Your task to perform on an android device: change notification settings in the gmail app Image 0: 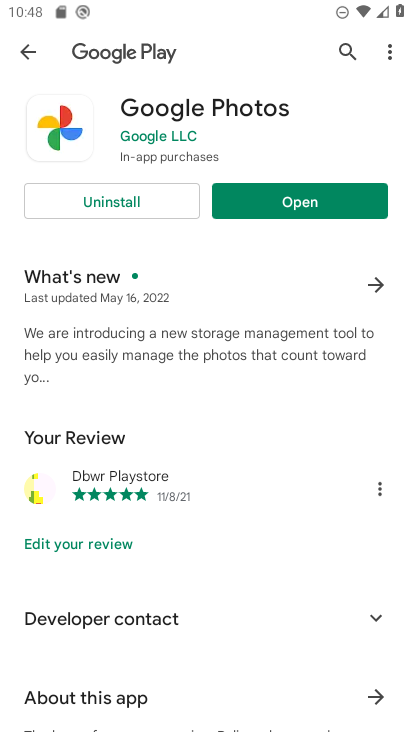
Step 0: press home button
Your task to perform on an android device: change notification settings in the gmail app Image 1: 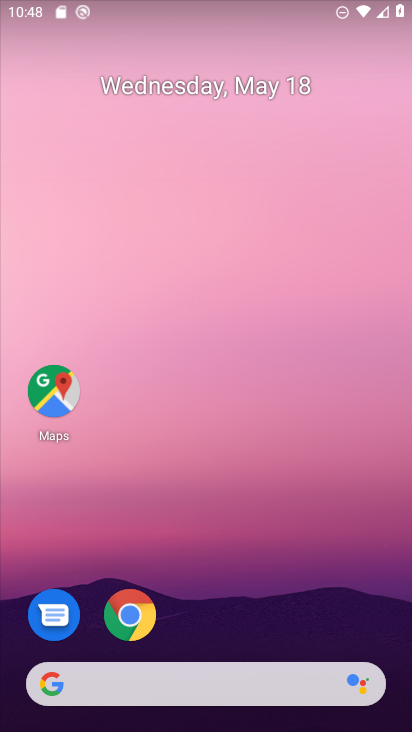
Step 1: drag from (256, 611) to (268, 19)
Your task to perform on an android device: change notification settings in the gmail app Image 2: 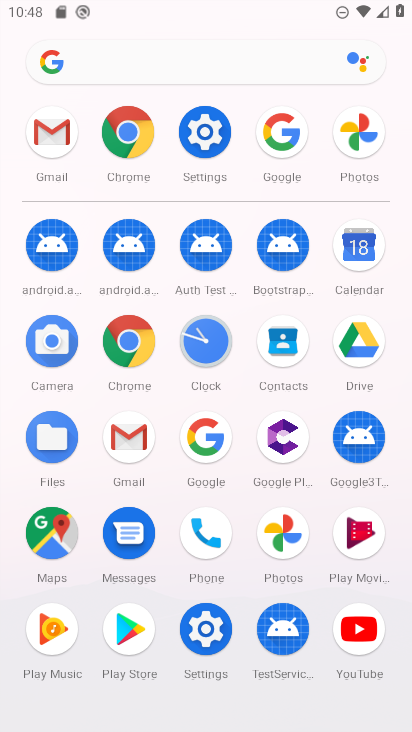
Step 2: click (48, 138)
Your task to perform on an android device: change notification settings in the gmail app Image 3: 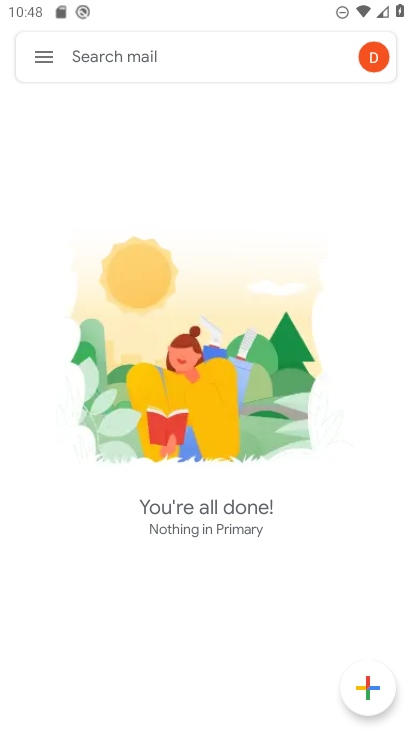
Step 3: click (37, 55)
Your task to perform on an android device: change notification settings in the gmail app Image 4: 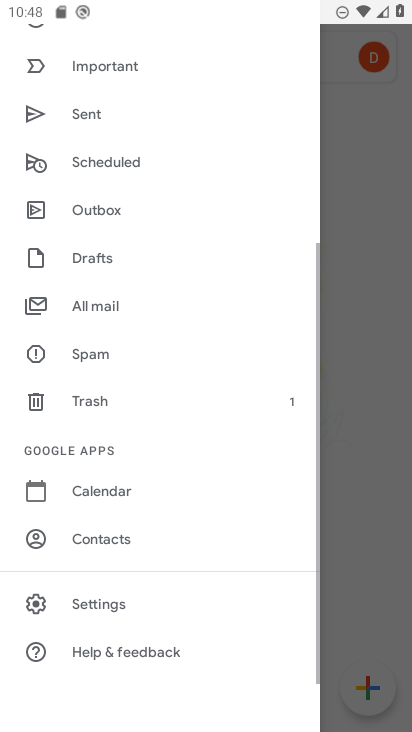
Step 4: click (125, 613)
Your task to perform on an android device: change notification settings in the gmail app Image 5: 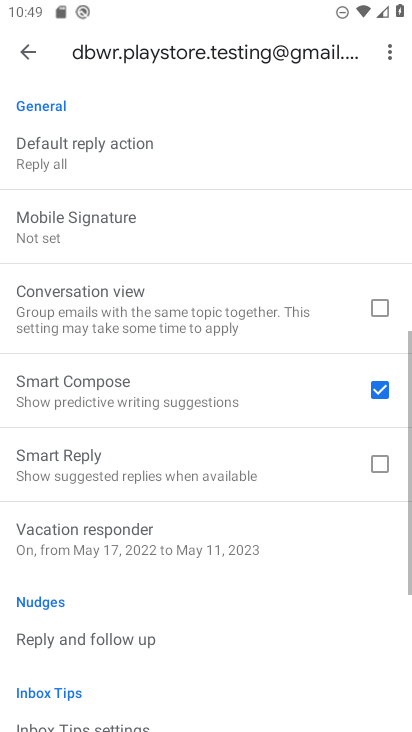
Step 5: drag from (221, 596) to (225, 96)
Your task to perform on an android device: change notification settings in the gmail app Image 6: 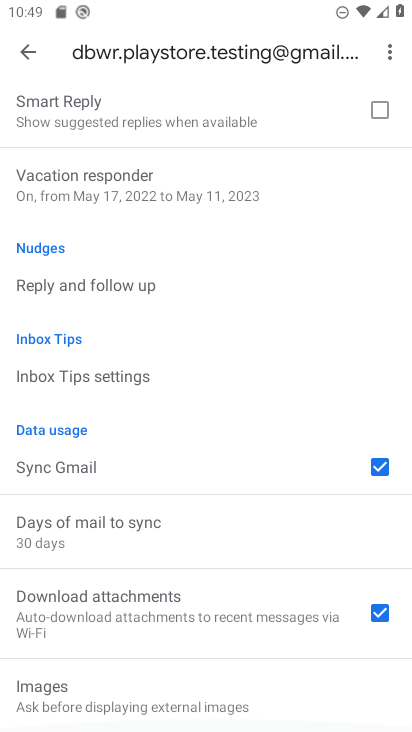
Step 6: drag from (213, 597) to (335, 615)
Your task to perform on an android device: change notification settings in the gmail app Image 7: 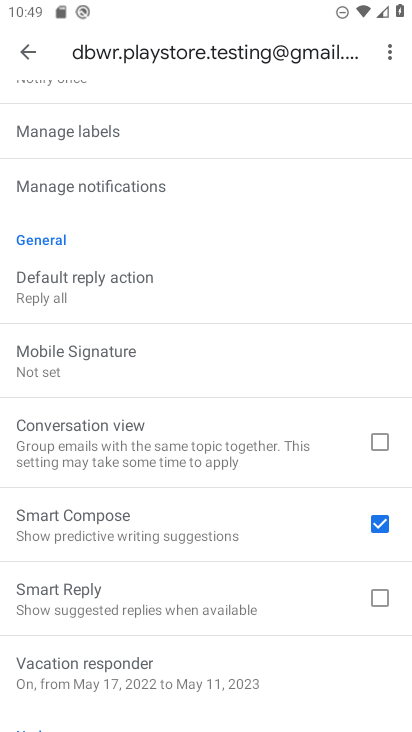
Step 7: drag from (179, 218) to (245, 585)
Your task to perform on an android device: change notification settings in the gmail app Image 8: 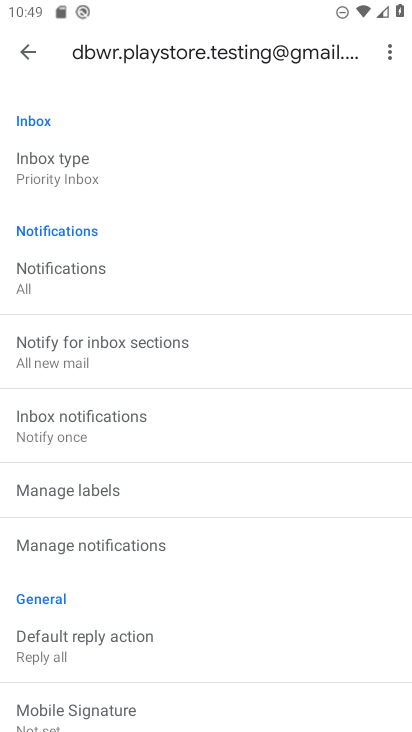
Step 8: click (81, 284)
Your task to perform on an android device: change notification settings in the gmail app Image 9: 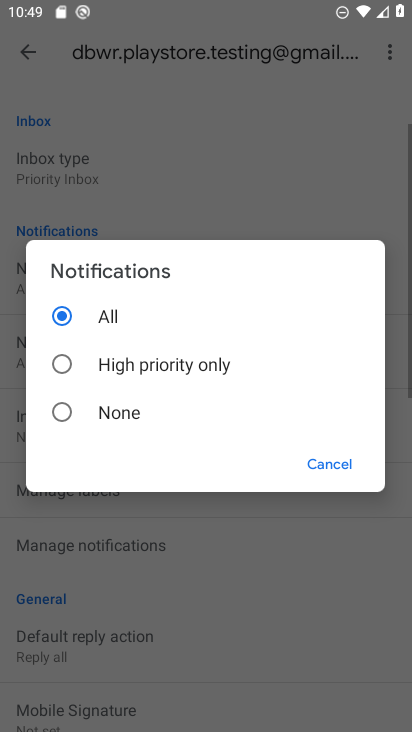
Step 9: click (67, 411)
Your task to perform on an android device: change notification settings in the gmail app Image 10: 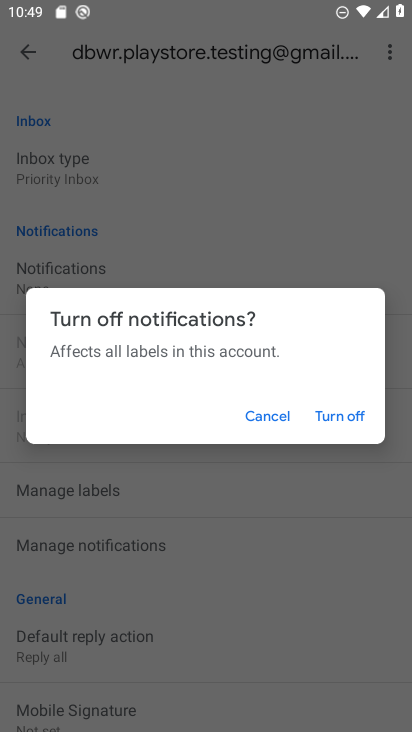
Step 10: task complete